Your task to perform on an android device: turn off smart reply in the gmail app Image 0: 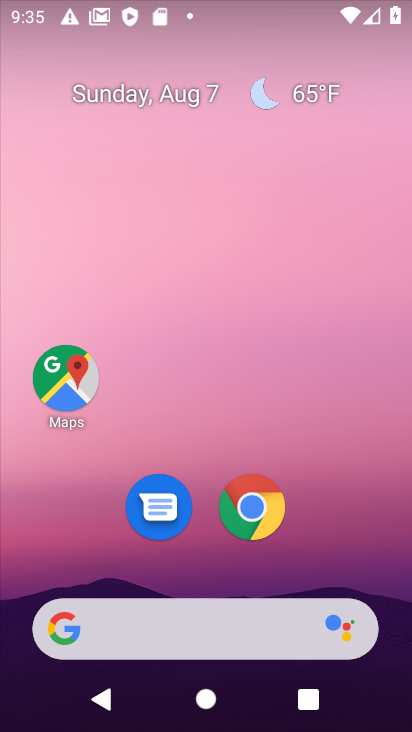
Step 0: drag from (341, 516) to (278, 0)
Your task to perform on an android device: turn off smart reply in the gmail app Image 1: 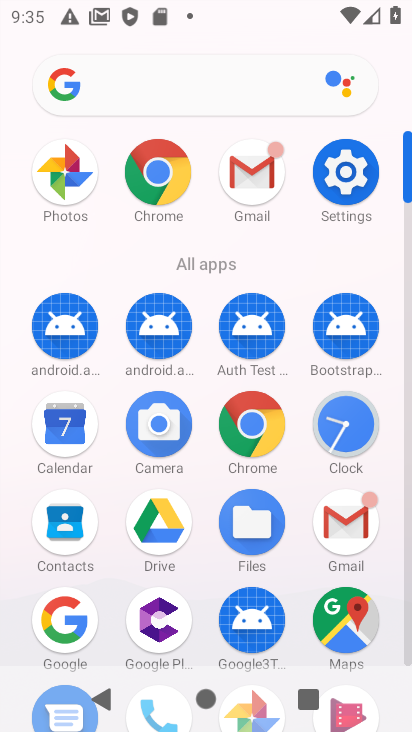
Step 1: click (248, 188)
Your task to perform on an android device: turn off smart reply in the gmail app Image 2: 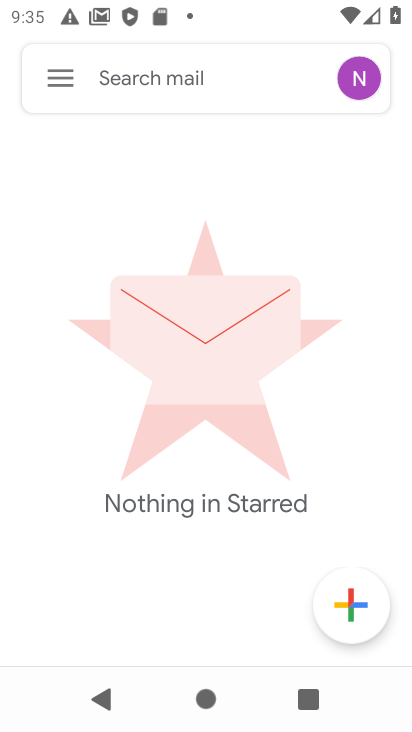
Step 2: click (56, 71)
Your task to perform on an android device: turn off smart reply in the gmail app Image 3: 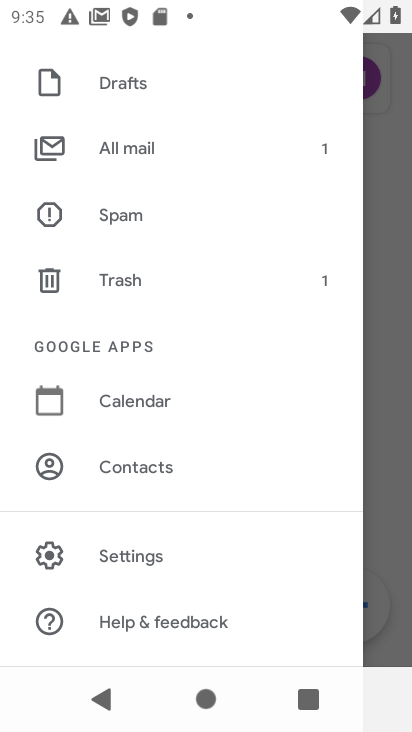
Step 3: click (111, 557)
Your task to perform on an android device: turn off smart reply in the gmail app Image 4: 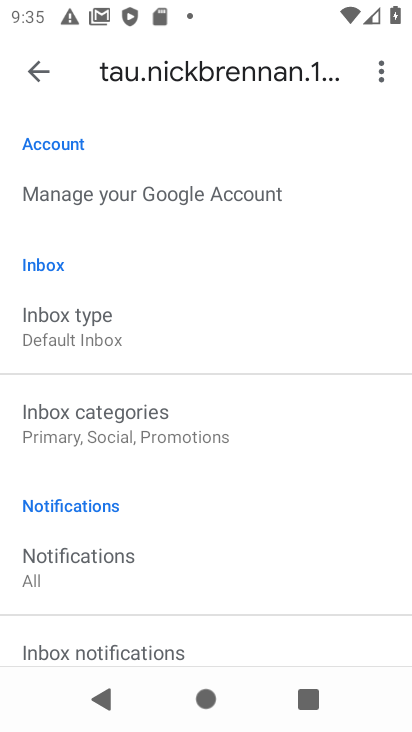
Step 4: drag from (322, 545) to (345, 317)
Your task to perform on an android device: turn off smart reply in the gmail app Image 5: 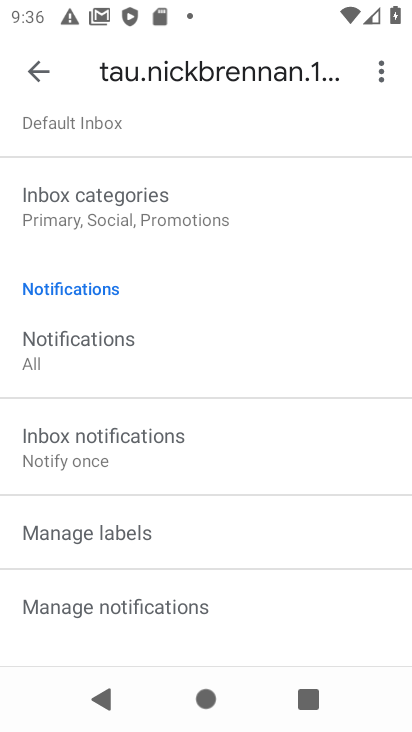
Step 5: drag from (261, 570) to (336, 390)
Your task to perform on an android device: turn off smart reply in the gmail app Image 6: 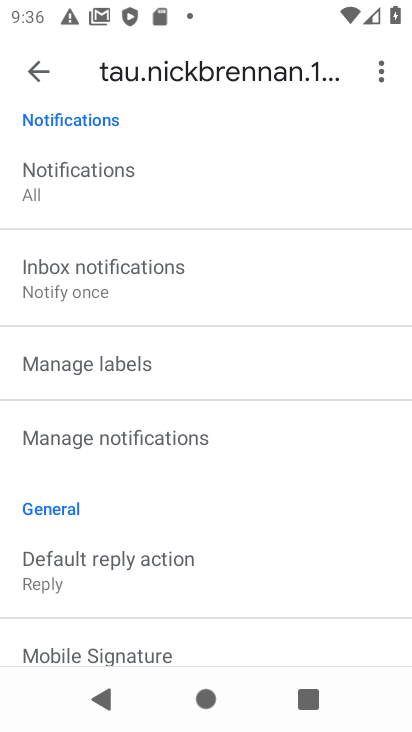
Step 6: drag from (296, 539) to (318, 227)
Your task to perform on an android device: turn off smart reply in the gmail app Image 7: 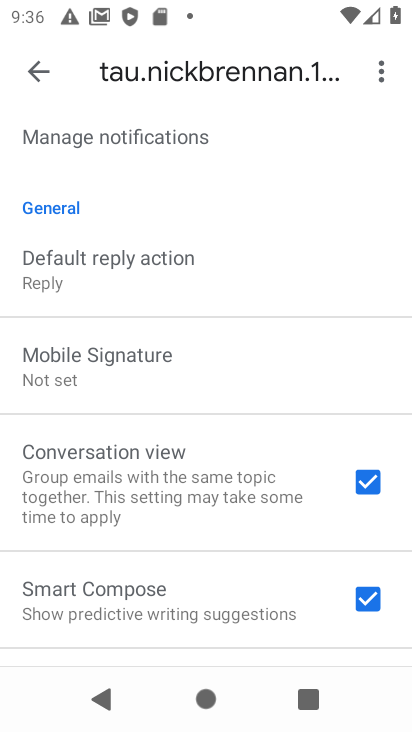
Step 7: drag from (223, 570) to (291, 239)
Your task to perform on an android device: turn off smart reply in the gmail app Image 8: 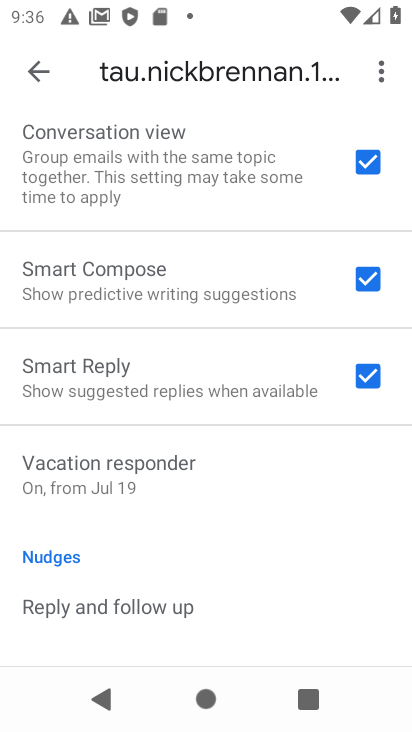
Step 8: click (368, 373)
Your task to perform on an android device: turn off smart reply in the gmail app Image 9: 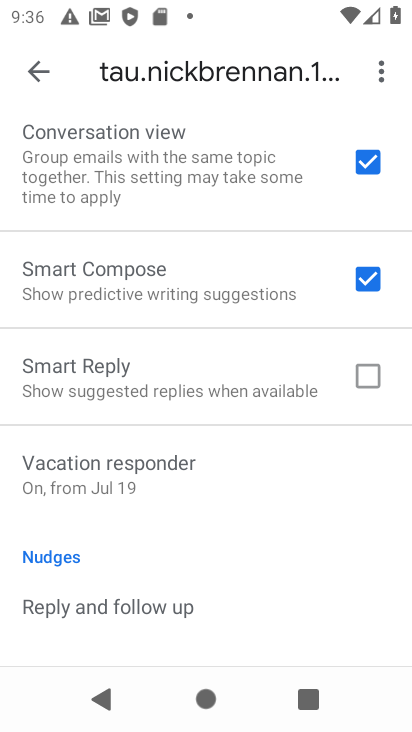
Step 9: task complete